Your task to perform on an android device: Go to sound settings Image 0: 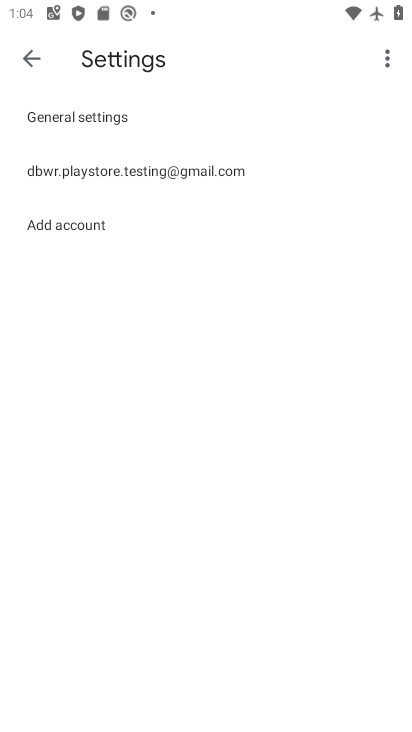
Step 0: press home button
Your task to perform on an android device: Go to sound settings Image 1: 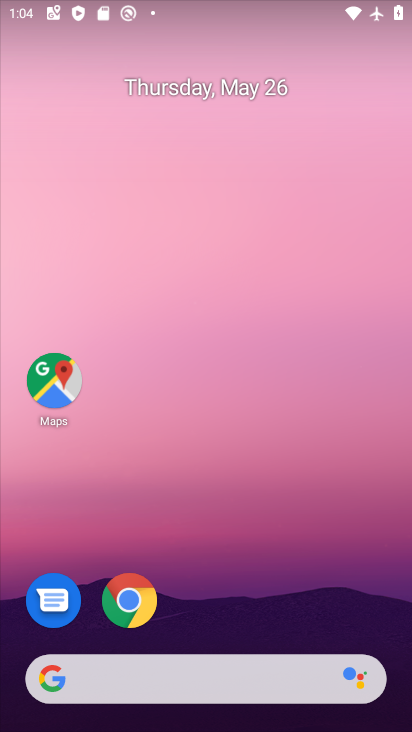
Step 1: drag from (263, 497) to (254, 84)
Your task to perform on an android device: Go to sound settings Image 2: 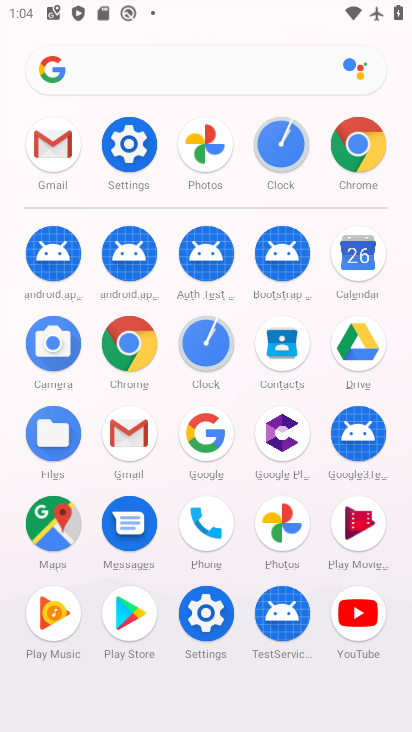
Step 2: click (124, 139)
Your task to perform on an android device: Go to sound settings Image 3: 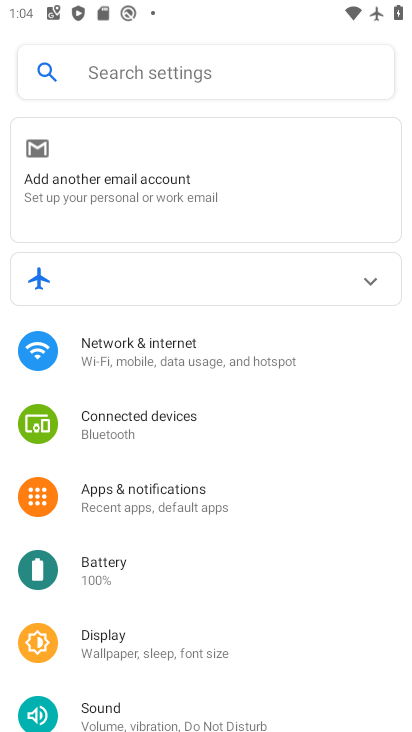
Step 3: drag from (225, 565) to (248, 148)
Your task to perform on an android device: Go to sound settings Image 4: 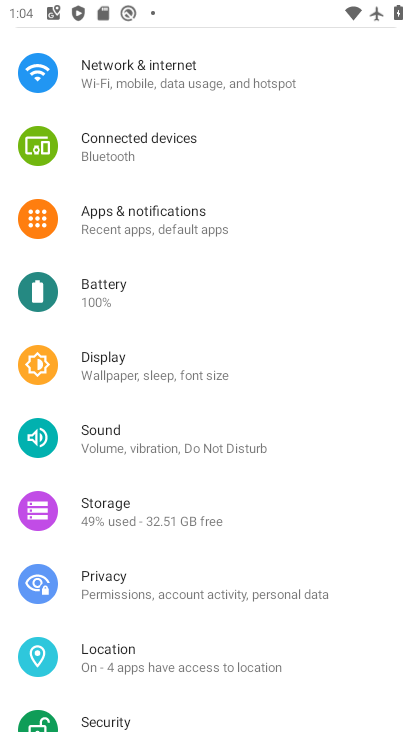
Step 4: click (137, 441)
Your task to perform on an android device: Go to sound settings Image 5: 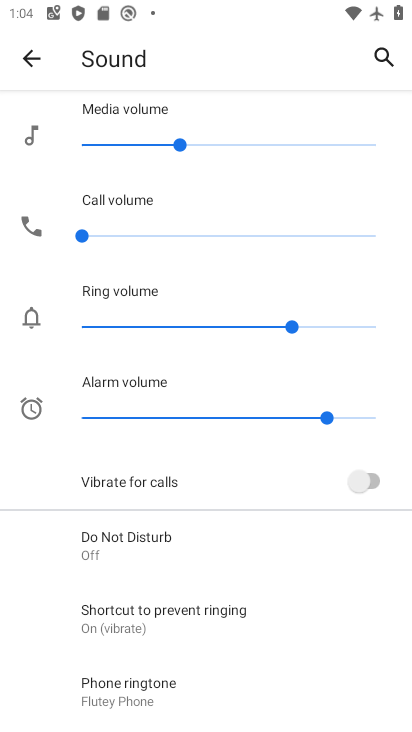
Step 5: task complete